Your task to perform on an android device: toggle improve location accuracy Image 0: 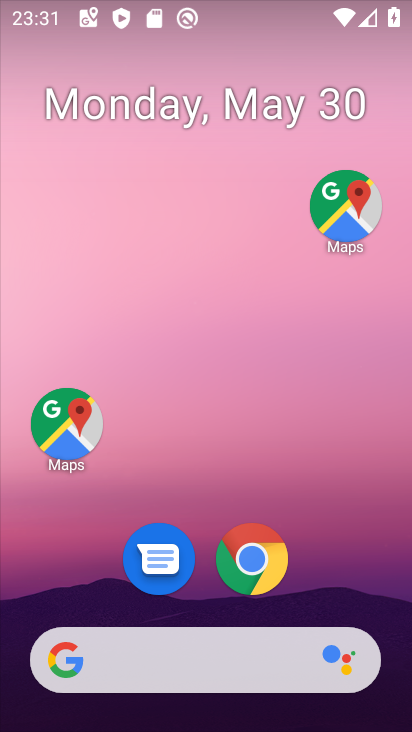
Step 0: drag from (337, 587) to (218, 115)
Your task to perform on an android device: toggle improve location accuracy Image 1: 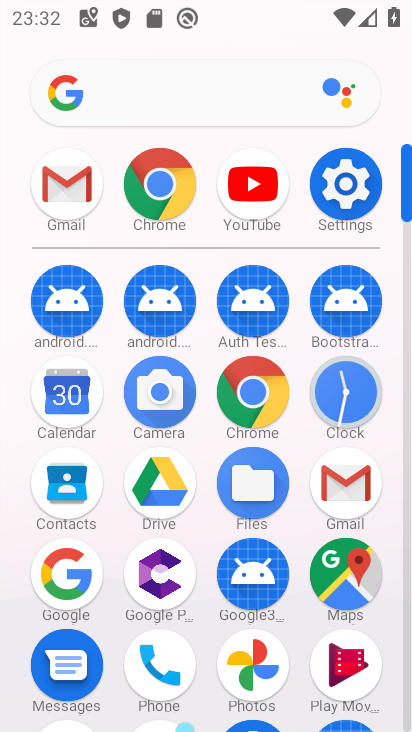
Step 1: click (363, 181)
Your task to perform on an android device: toggle improve location accuracy Image 2: 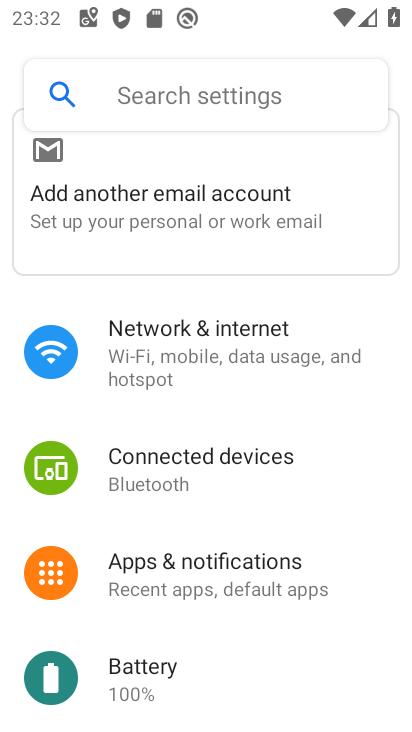
Step 2: drag from (241, 556) to (262, 79)
Your task to perform on an android device: toggle improve location accuracy Image 3: 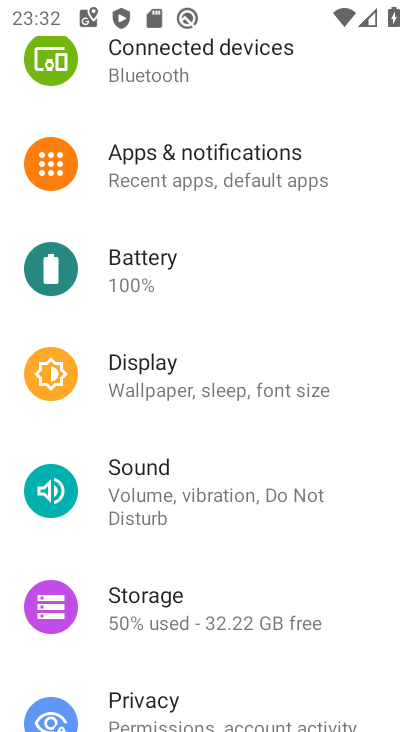
Step 3: drag from (239, 655) to (271, 185)
Your task to perform on an android device: toggle improve location accuracy Image 4: 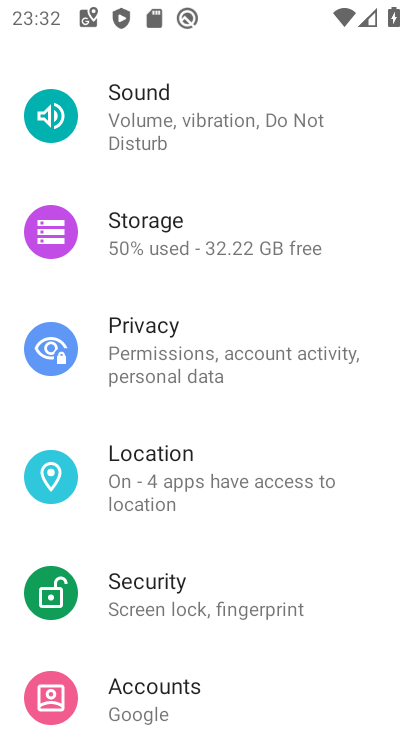
Step 4: click (235, 463)
Your task to perform on an android device: toggle improve location accuracy Image 5: 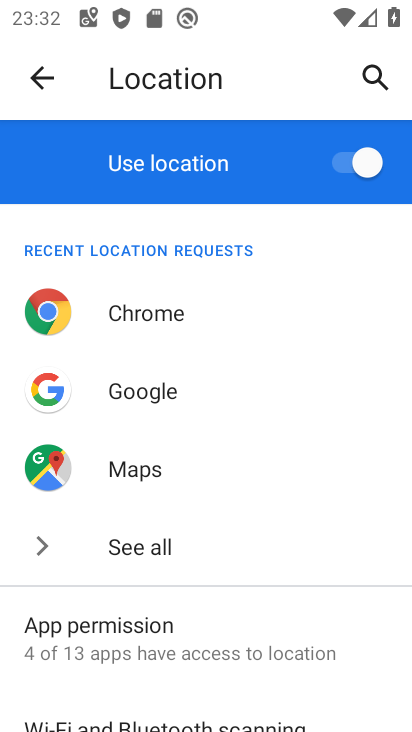
Step 5: drag from (229, 621) to (238, 117)
Your task to perform on an android device: toggle improve location accuracy Image 6: 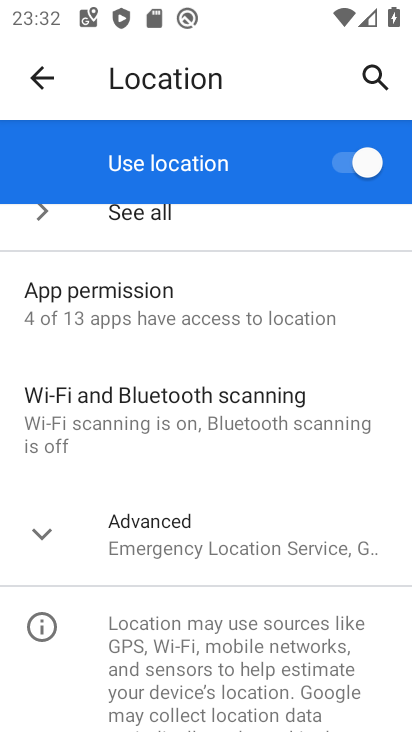
Step 6: click (201, 546)
Your task to perform on an android device: toggle improve location accuracy Image 7: 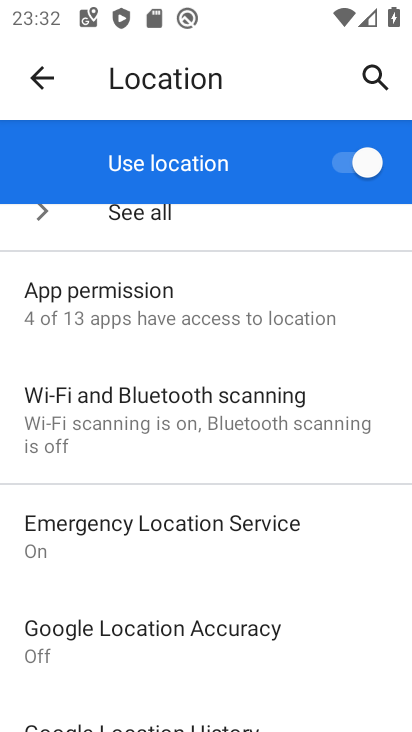
Step 7: click (263, 629)
Your task to perform on an android device: toggle improve location accuracy Image 8: 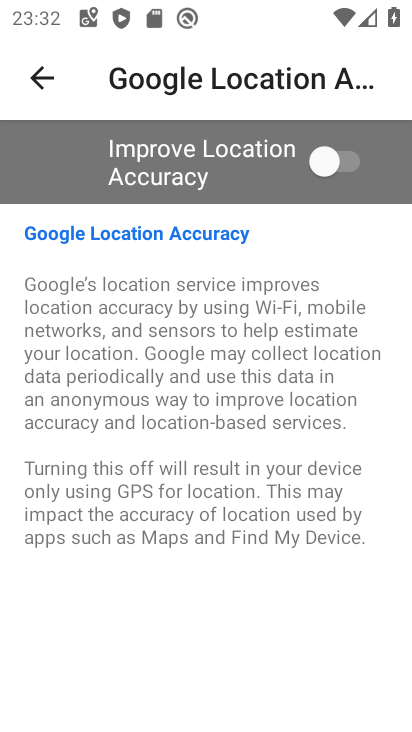
Step 8: click (345, 159)
Your task to perform on an android device: toggle improve location accuracy Image 9: 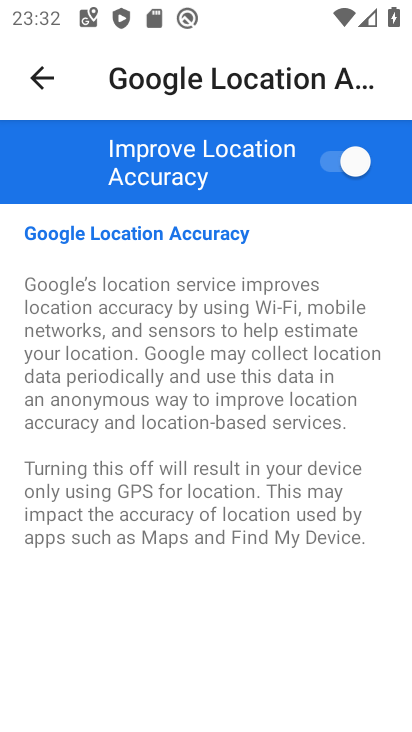
Step 9: task complete